Your task to perform on an android device: Open maps Image 0: 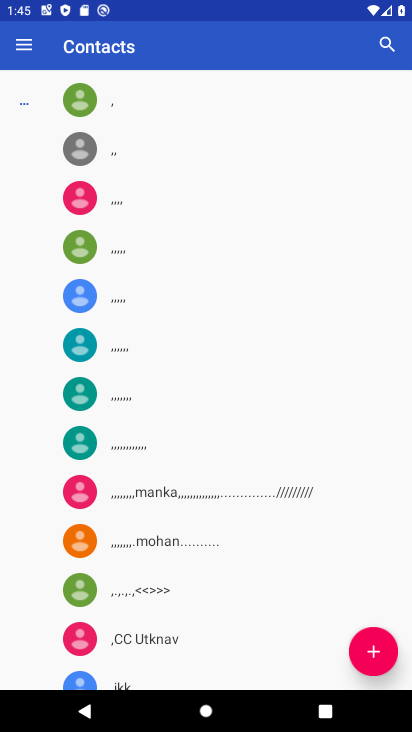
Step 0: press home button
Your task to perform on an android device: Open maps Image 1: 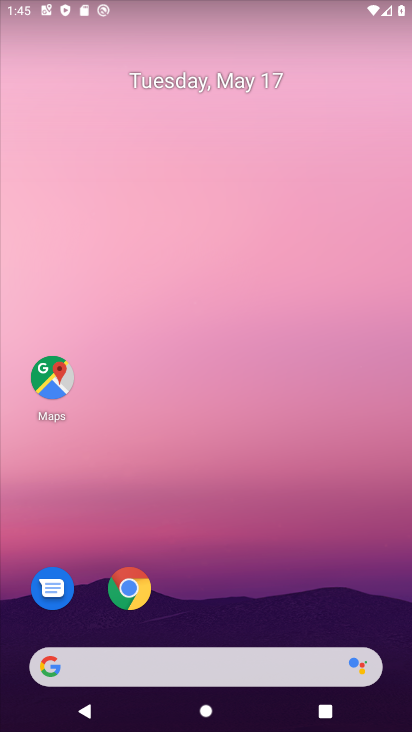
Step 1: click (58, 378)
Your task to perform on an android device: Open maps Image 2: 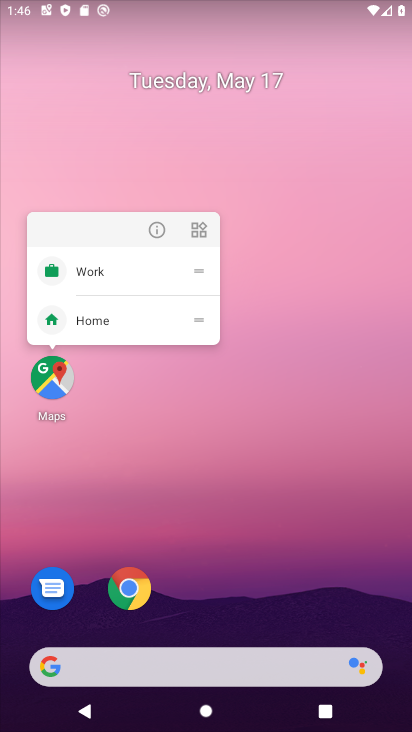
Step 2: click (58, 378)
Your task to perform on an android device: Open maps Image 3: 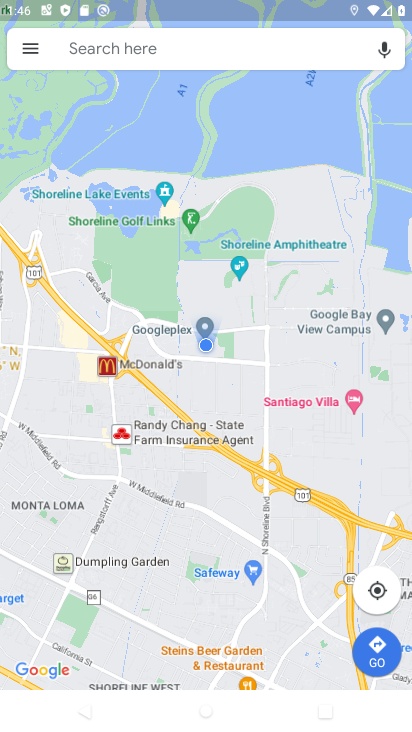
Step 3: task complete